Your task to perform on an android device: check out phone information Image 0: 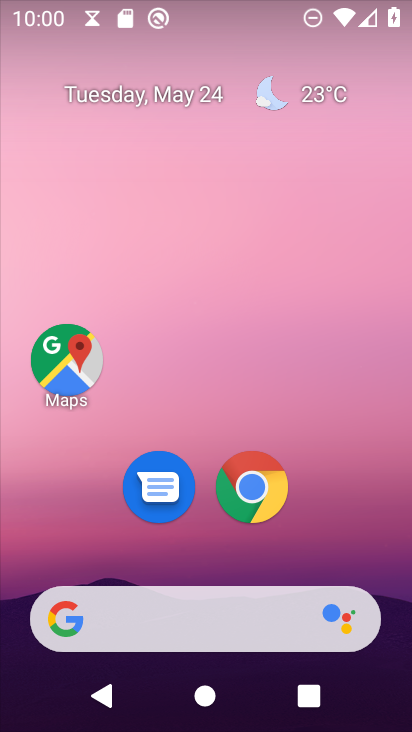
Step 0: drag from (31, 475) to (229, 127)
Your task to perform on an android device: check out phone information Image 1: 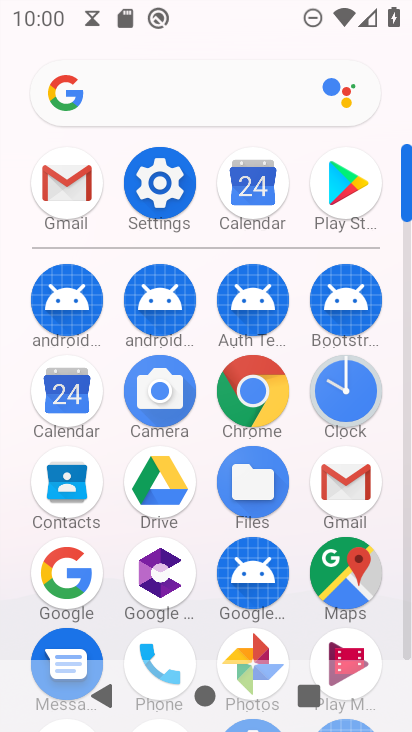
Step 1: click (165, 652)
Your task to perform on an android device: check out phone information Image 2: 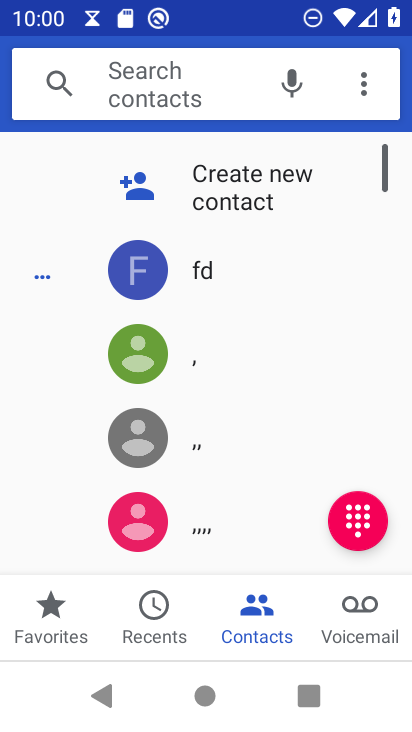
Step 2: task complete